Your task to perform on an android device: How much does a 3 bedroom apartment rent for in Los Angeles? Image 0: 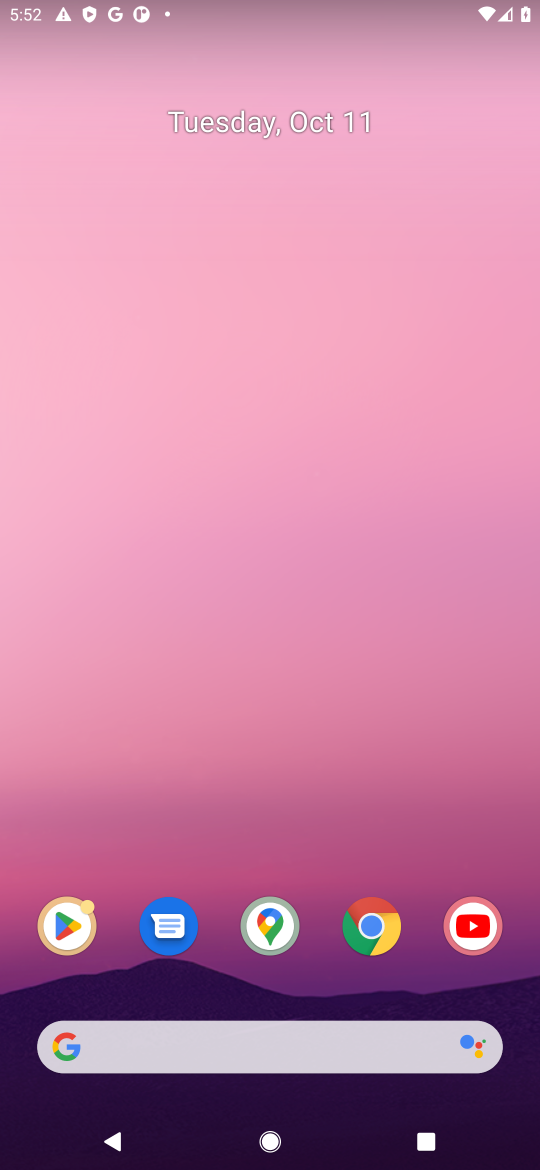
Step 0: click (273, 1040)
Your task to perform on an android device: How much does a 3 bedroom apartment rent for in Los Angeles? Image 1: 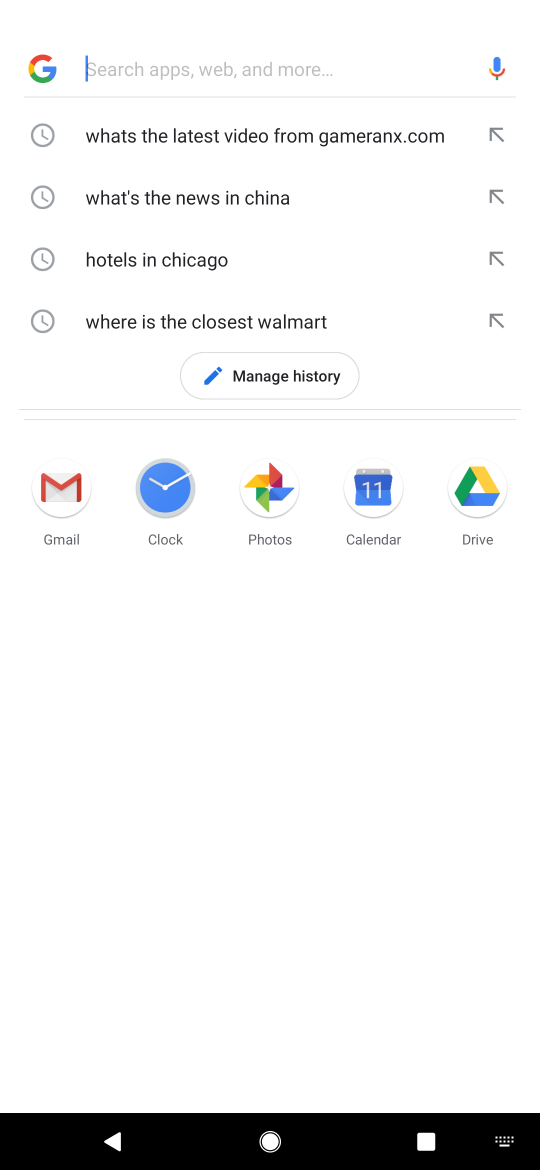
Step 1: type "How much does a 3 bedroom apartment rent for in Los Angeles?"
Your task to perform on an android device: How much does a 3 bedroom apartment rent for in Los Angeles? Image 2: 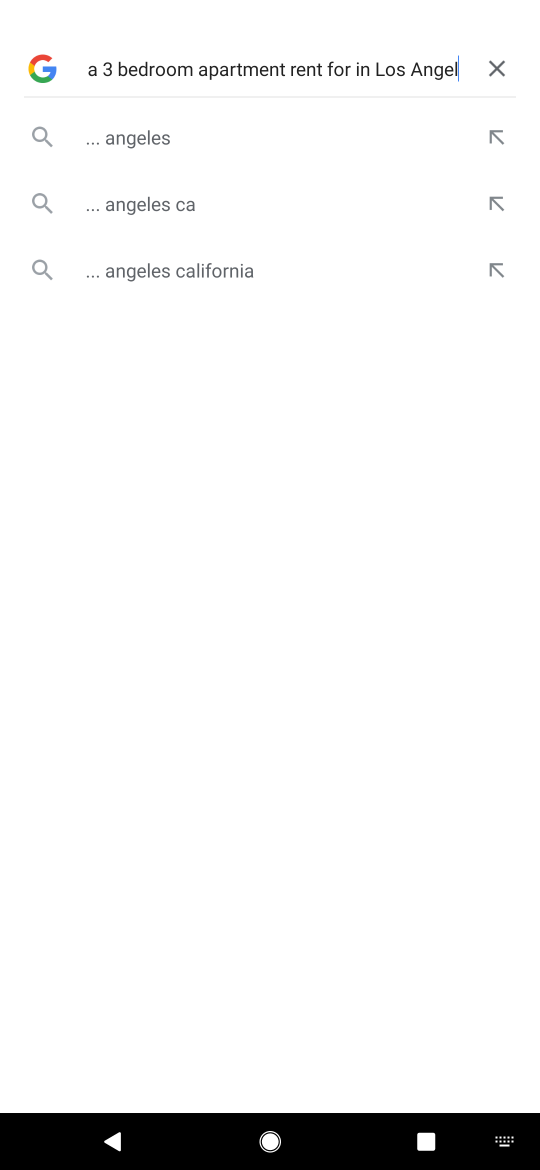
Step 2: click (134, 137)
Your task to perform on an android device: How much does a 3 bedroom apartment rent for in Los Angeles? Image 3: 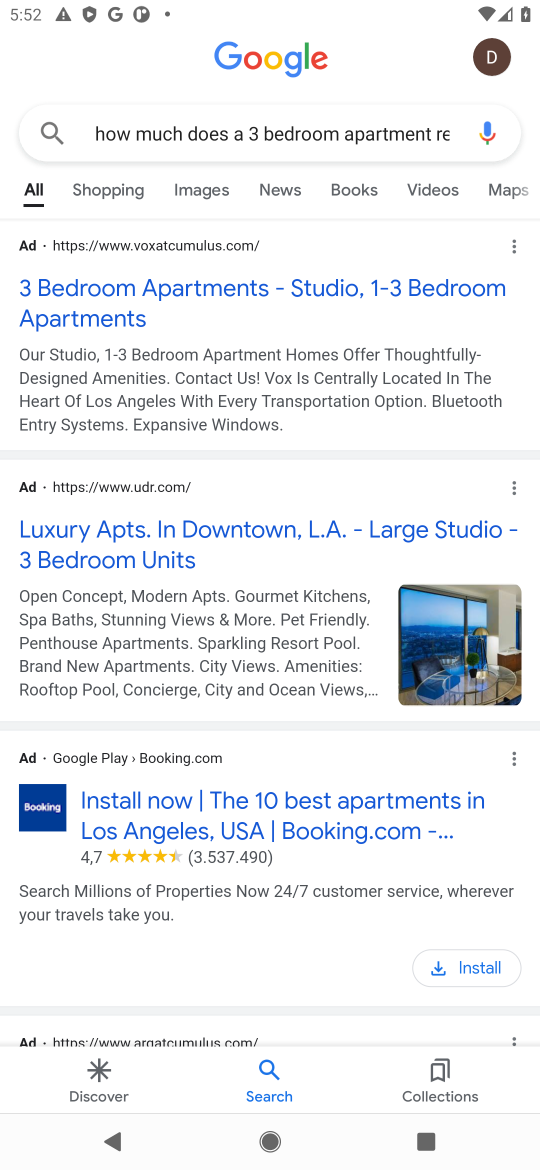
Step 3: click (187, 292)
Your task to perform on an android device: How much does a 3 bedroom apartment rent for in Los Angeles? Image 4: 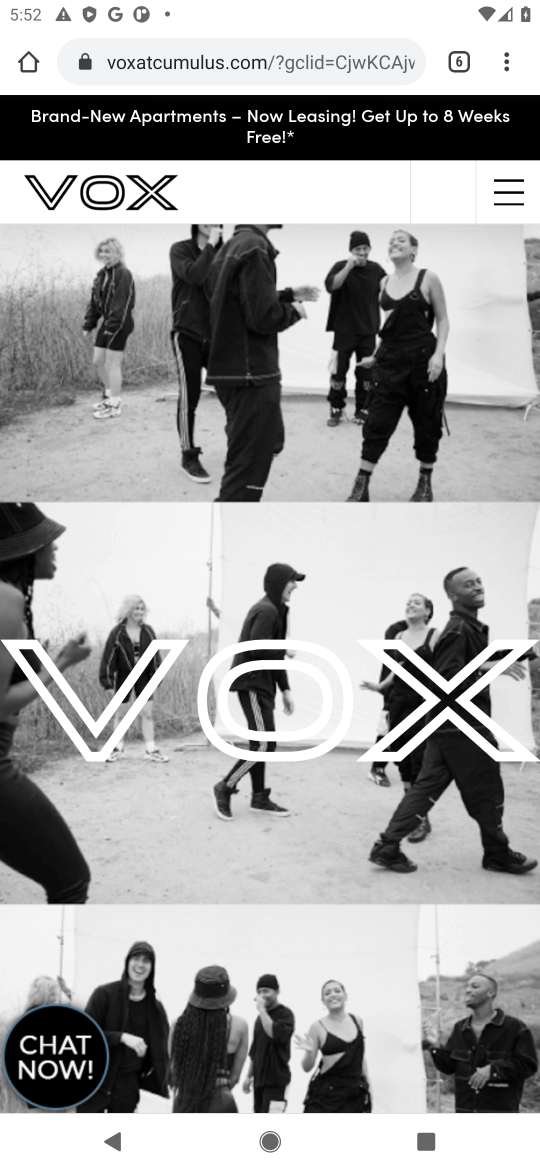
Step 4: drag from (370, 844) to (307, 512)
Your task to perform on an android device: How much does a 3 bedroom apartment rent for in Los Angeles? Image 5: 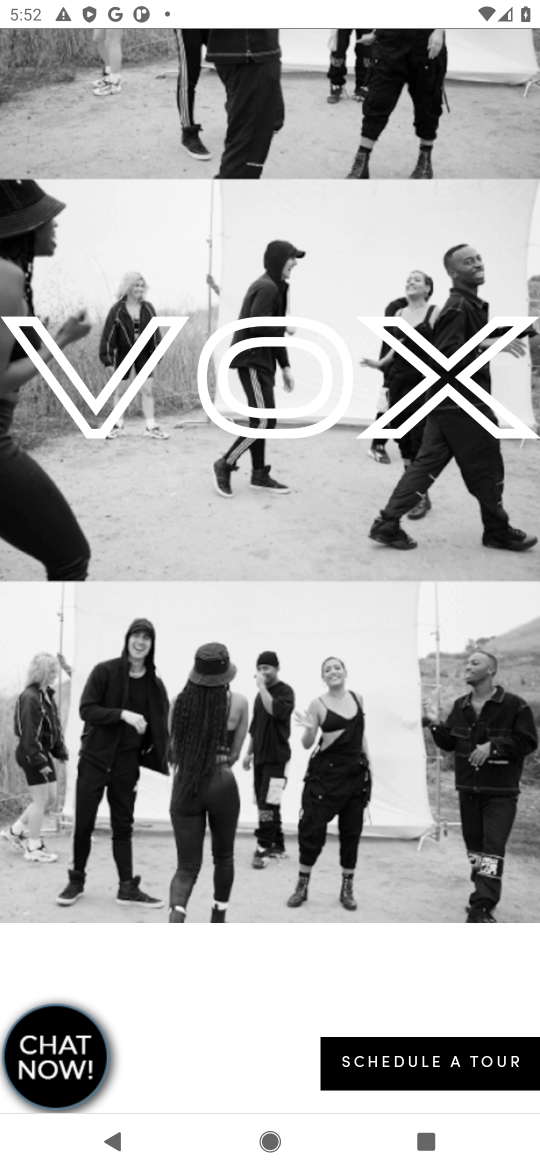
Step 5: drag from (322, 818) to (255, 290)
Your task to perform on an android device: How much does a 3 bedroom apartment rent for in Los Angeles? Image 6: 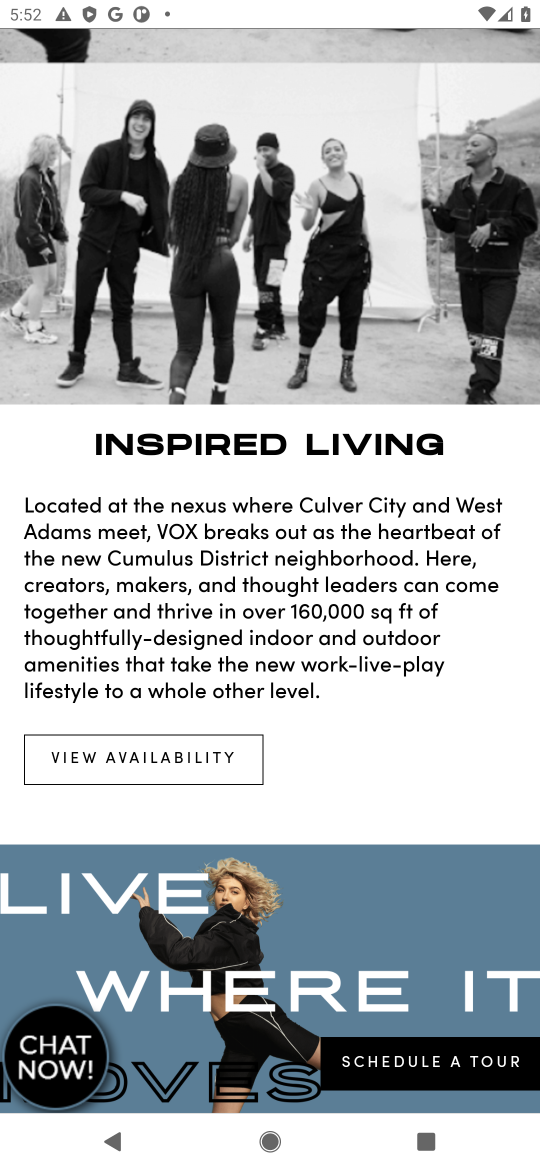
Step 6: drag from (335, 791) to (300, 420)
Your task to perform on an android device: How much does a 3 bedroom apartment rent for in Los Angeles? Image 7: 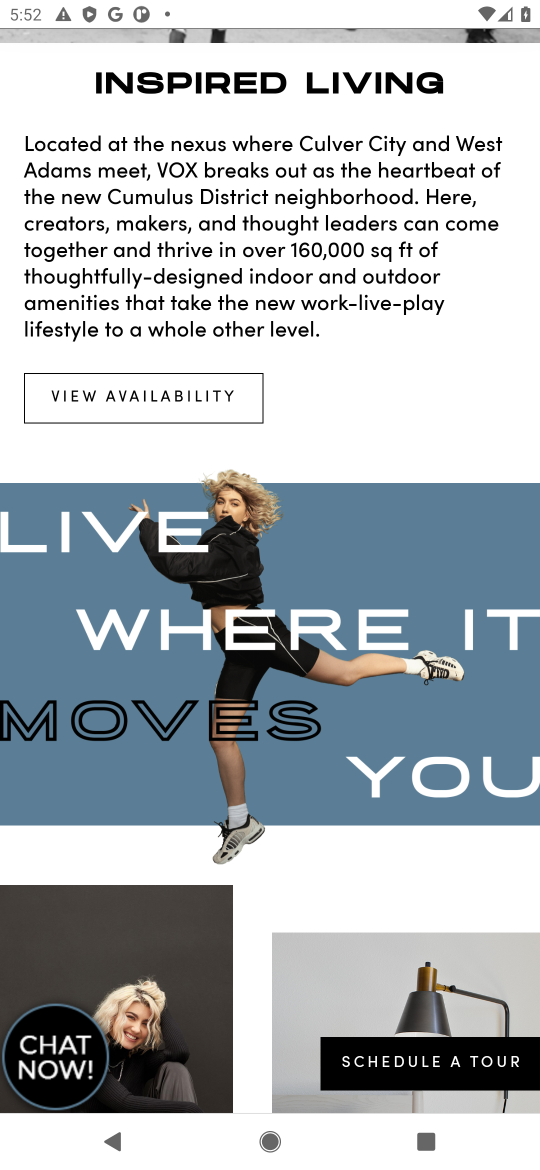
Step 7: drag from (370, 719) to (349, 400)
Your task to perform on an android device: How much does a 3 bedroom apartment rent for in Los Angeles? Image 8: 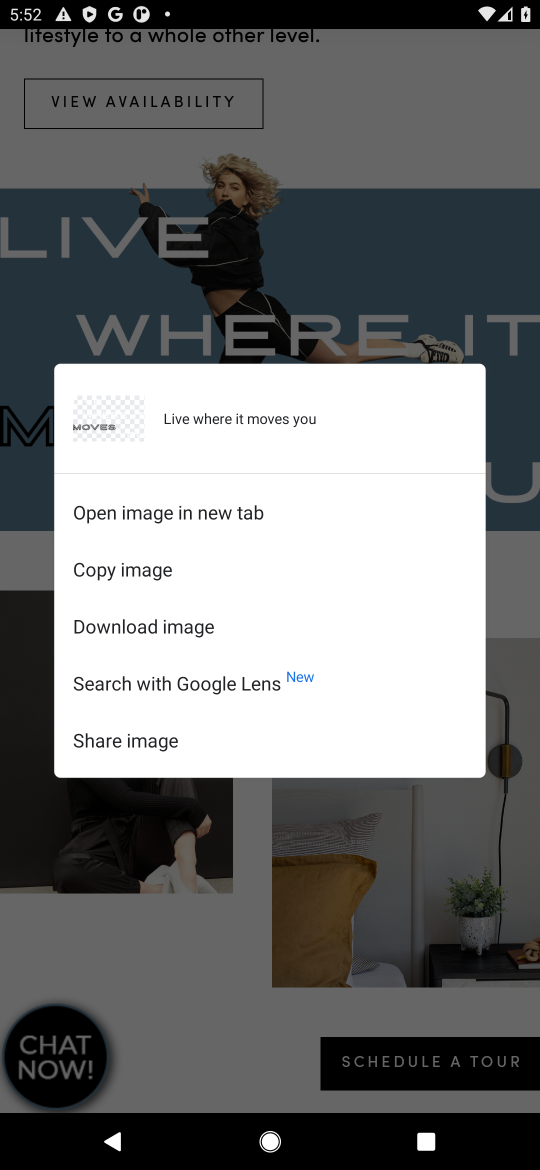
Step 8: click (340, 854)
Your task to perform on an android device: How much does a 3 bedroom apartment rent for in Los Angeles? Image 9: 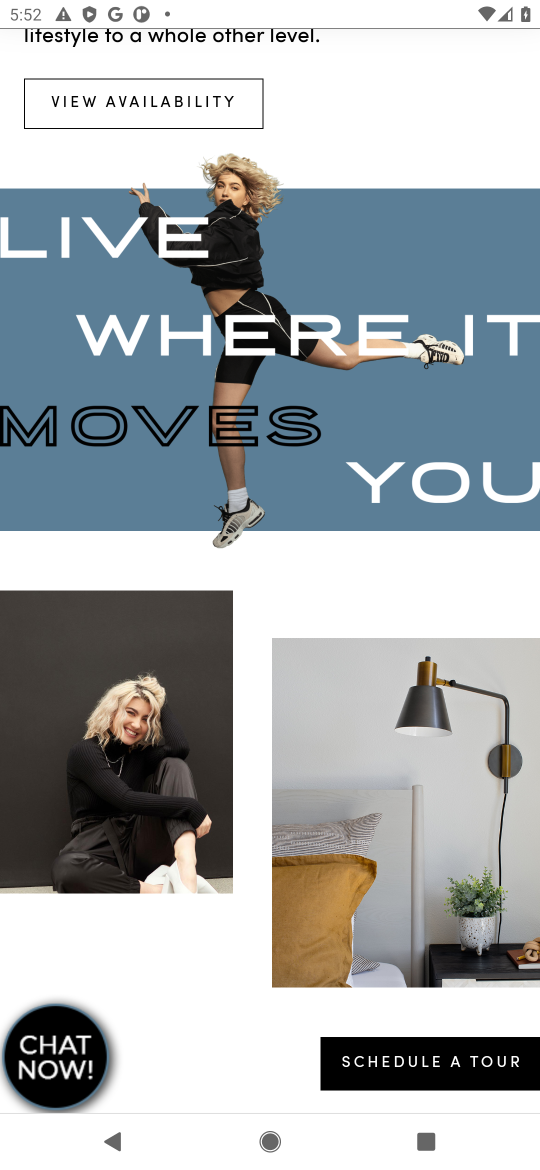
Step 9: drag from (243, 953) to (238, 538)
Your task to perform on an android device: How much does a 3 bedroom apartment rent for in Los Angeles? Image 10: 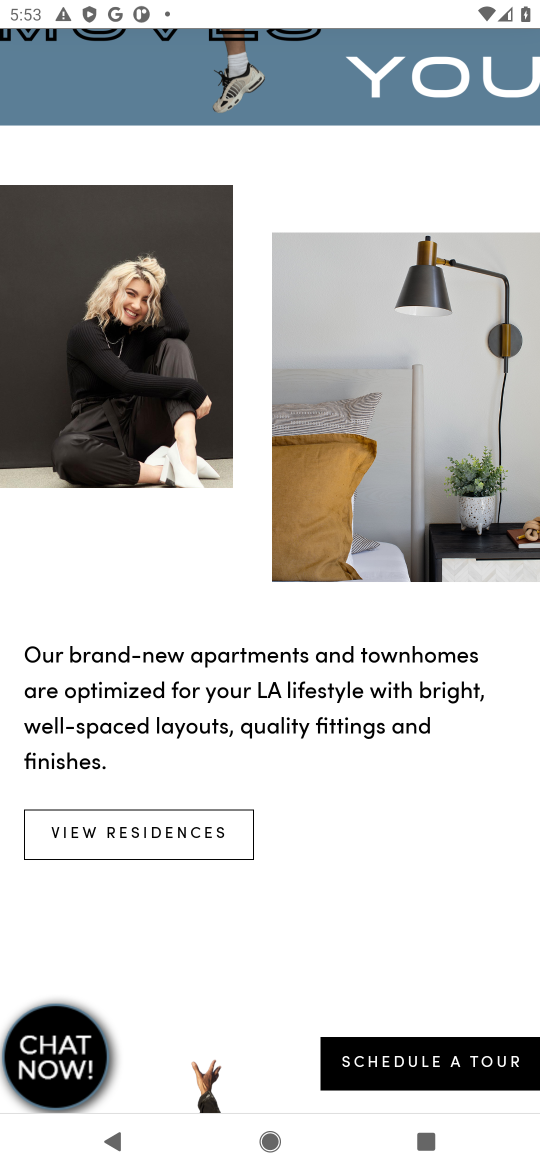
Step 10: drag from (298, 817) to (307, 420)
Your task to perform on an android device: How much does a 3 bedroom apartment rent for in Los Angeles? Image 11: 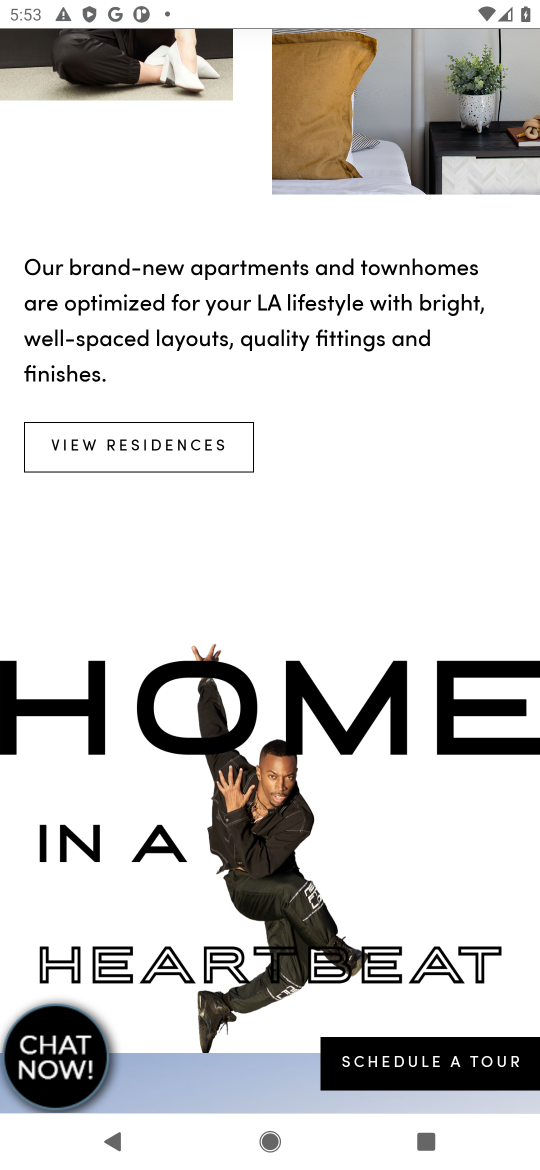
Step 11: drag from (375, 547) to (325, 167)
Your task to perform on an android device: How much does a 3 bedroom apartment rent for in Los Angeles? Image 12: 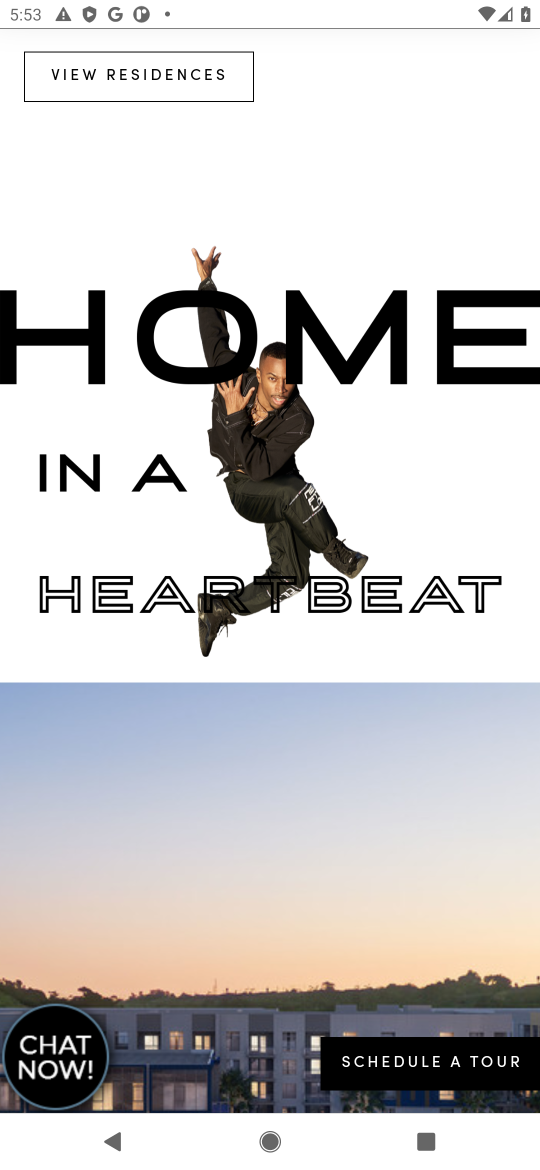
Step 12: drag from (293, 917) to (242, 409)
Your task to perform on an android device: How much does a 3 bedroom apartment rent for in Los Angeles? Image 13: 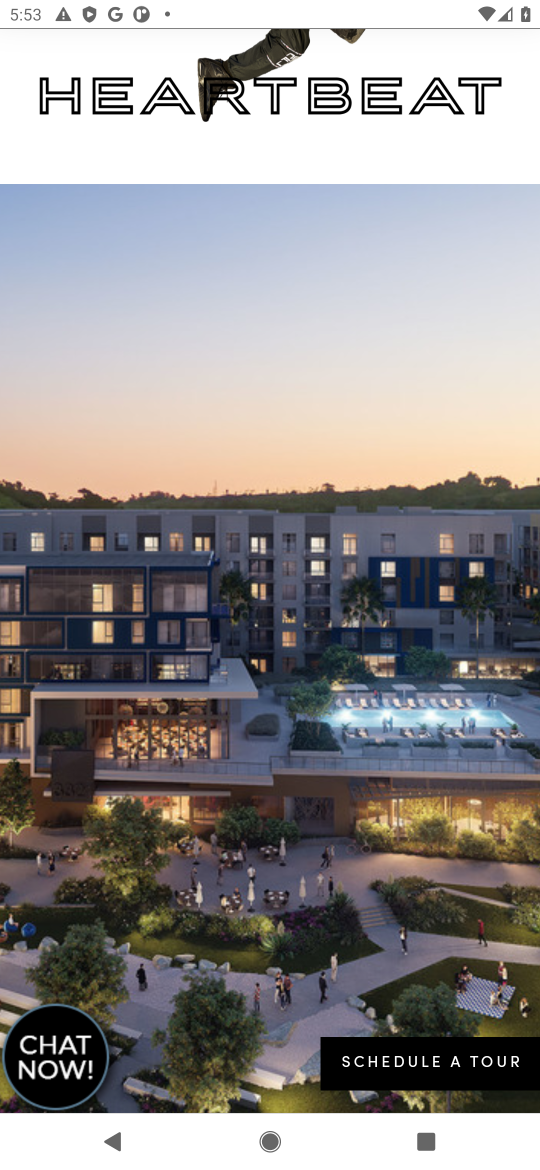
Step 13: drag from (285, 777) to (173, 314)
Your task to perform on an android device: How much does a 3 bedroom apartment rent for in Los Angeles? Image 14: 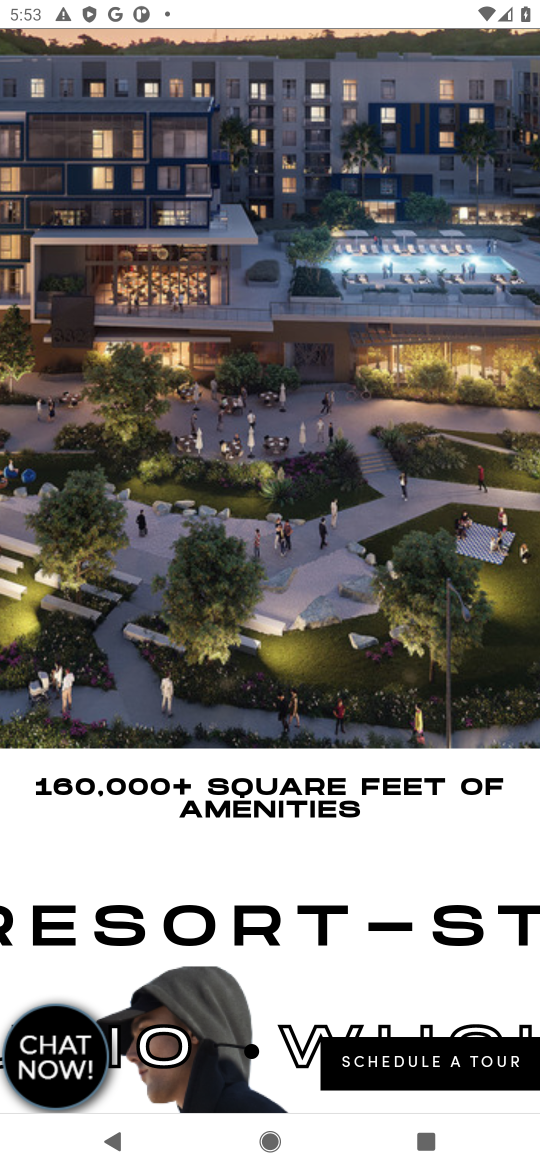
Step 14: drag from (223, 587) to (150, 243)
Your task to perform on an android device: How much does a 3 bedroom apartment rent for in Los Angeles? Image 15: 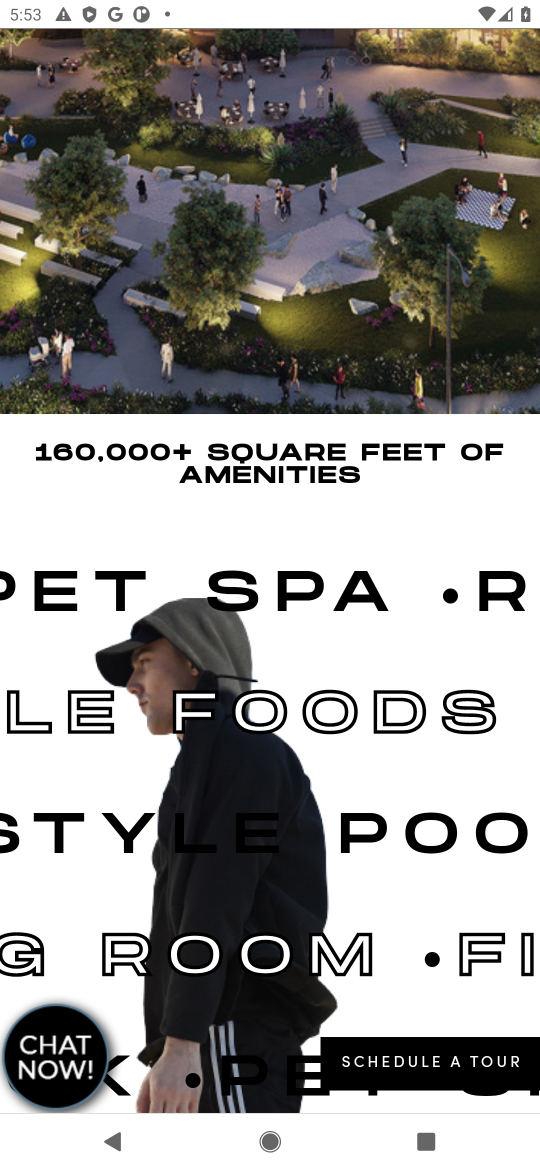
Step 15: drag from (372, 670) to (240, 178)
Your task to perform on an android device: How much does a 3 bedroom apartment rent for in Los Angeles? Image 16: 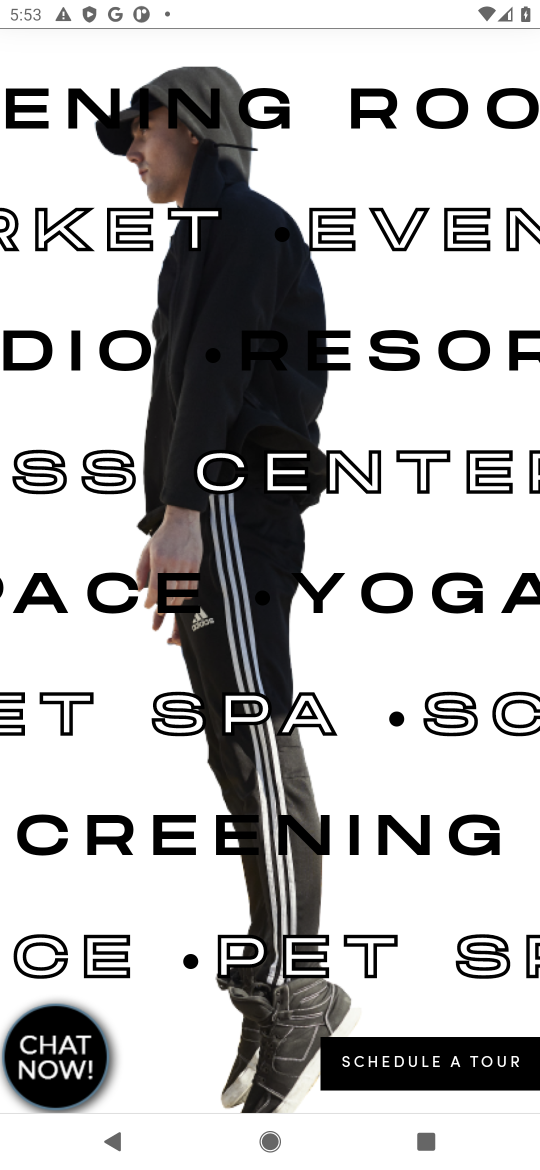
Step 16: drag from (409, 815) to (364, 486)
Your task to perform on an android device: How much does a 3 bedroom apartment rent for in Los Angeles? Image 17: 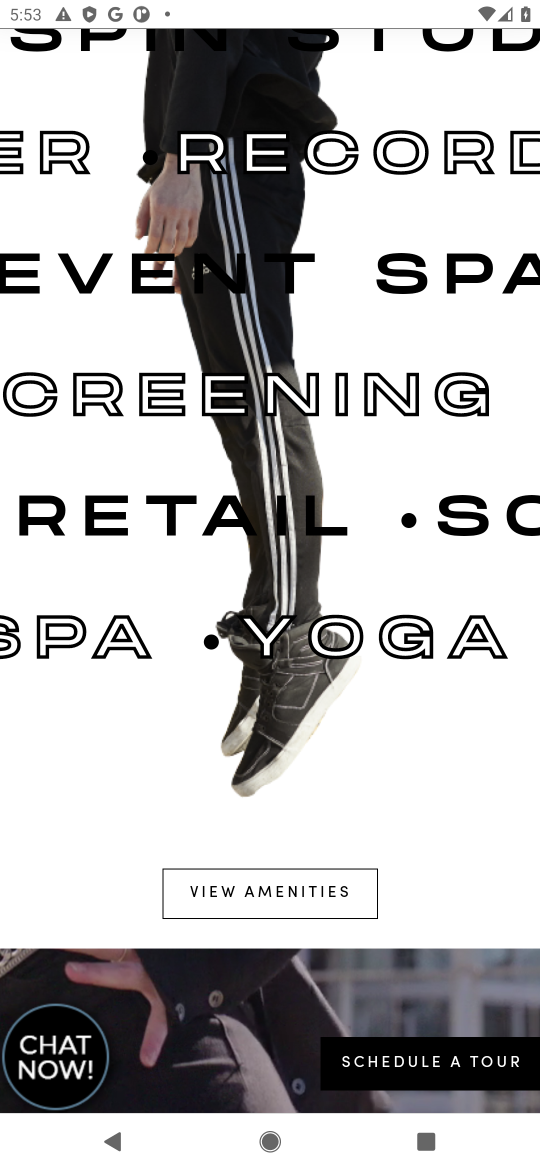
Step 17: drag from (448, 882) to (317, 448)
Your task to perform on an android device: How much does a 3 bedroom apartment rent for in Los Angeles? Image 18: 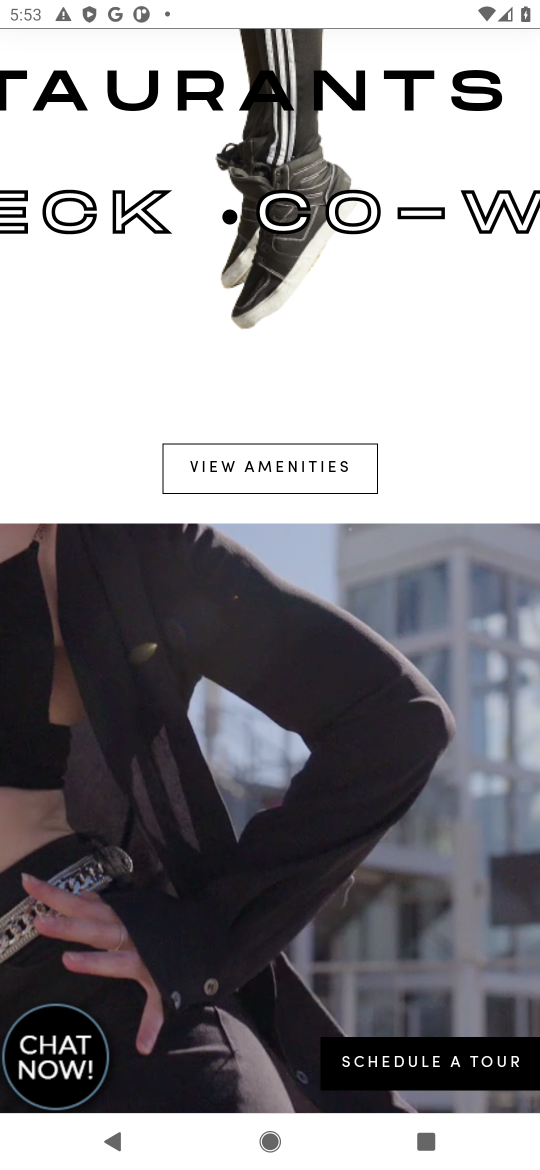
Step 18: drag from (429, 949) to (343, 609)
Your task to perform on an android device: How much does a 3 bedroom apartment rent for in Los Angeles? Image 19: 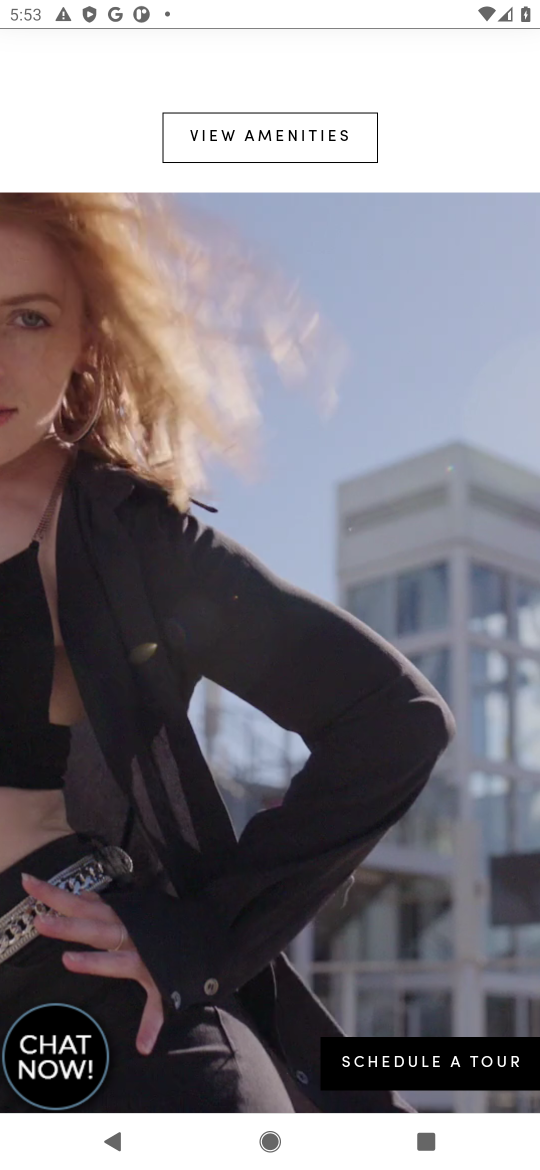
Step 19: drag from (408, 145) to (408, 407)
Your task to perform on an android device: How much does a 3 bedroom apartment rent for in Los Angeles? Image 20: 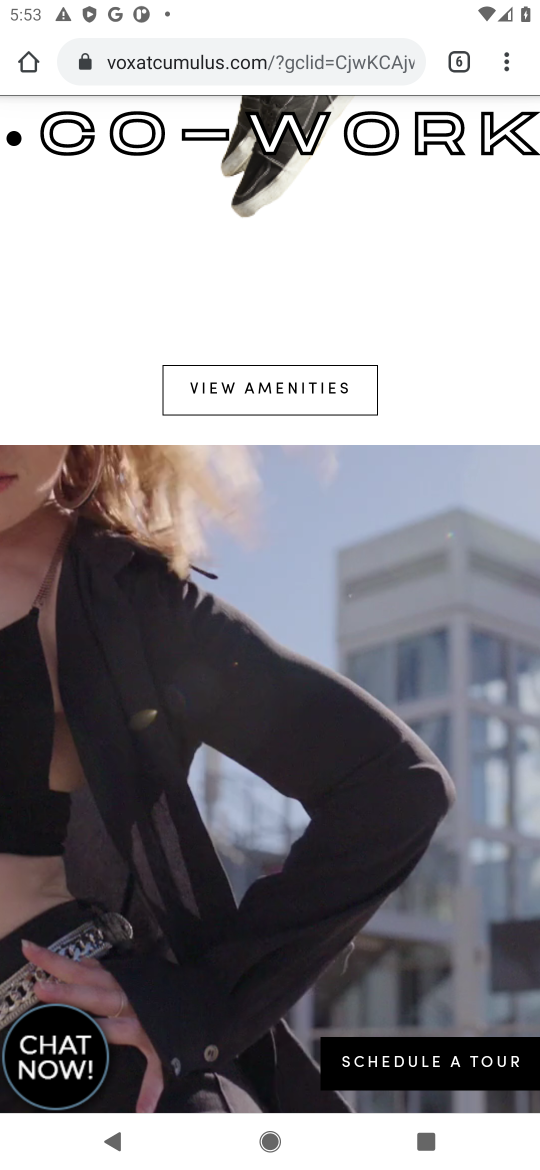
Step 20: drag from (401, 227) to (422, 791)
Your task to perform on an android device: How much does a 3 bedroom apartment rent for in Los Angeles? Image 21: 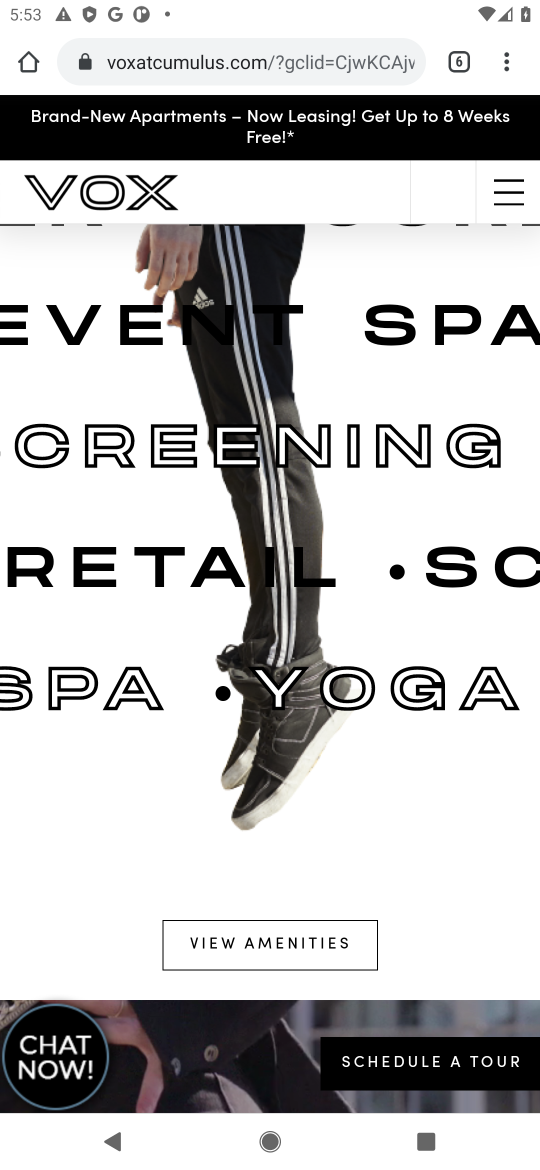
Step 21: click (511, 199)
Your task to perform on an android device: How much does a 3 bedroom apartment rent for in Los Angeles? Image 22: 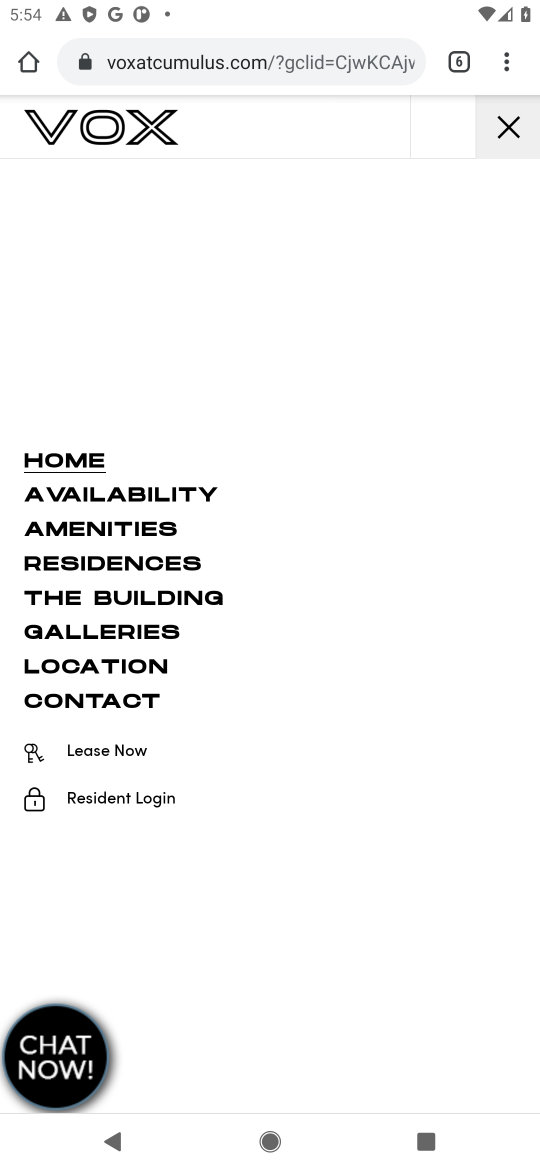
Step 22: click (85, 557)
Your task to perform on an android device: How much does a 3 bedroom apartment rent for in Los Angeles? Image 23: 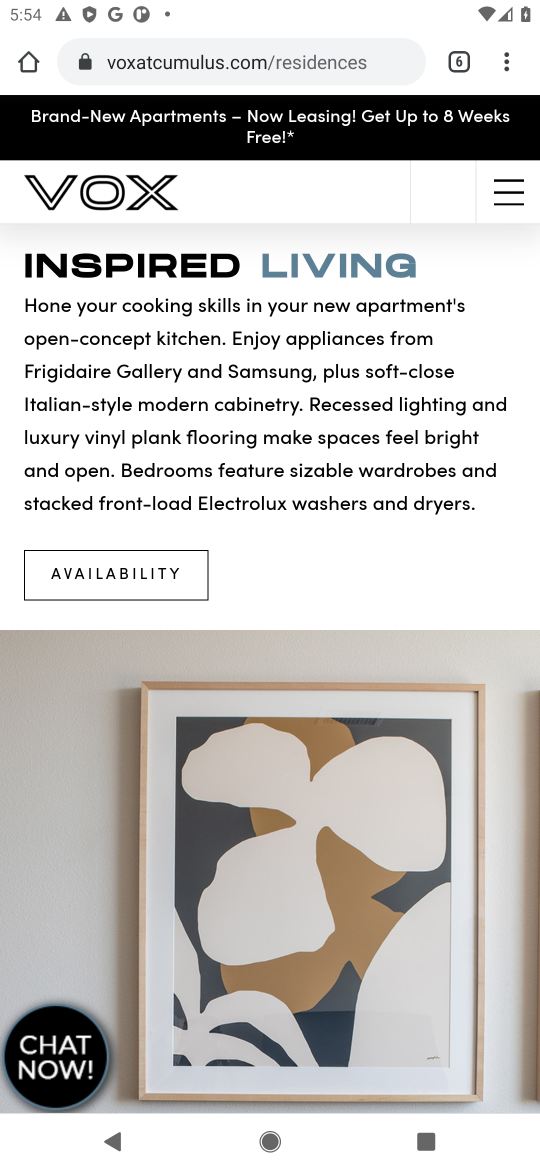
Step 23: task complete